Your task to perform on an android device: Go to location settings Image 0: 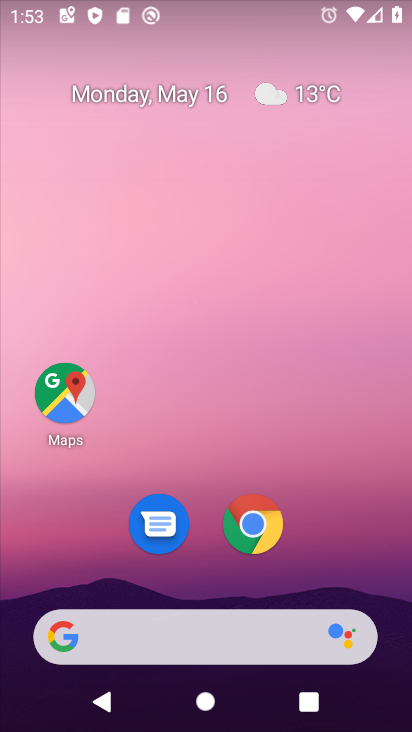
Step 0: drag from (285, 434) to (329, 26)
Your task to perform on an android device: Go to location settings Image 1: 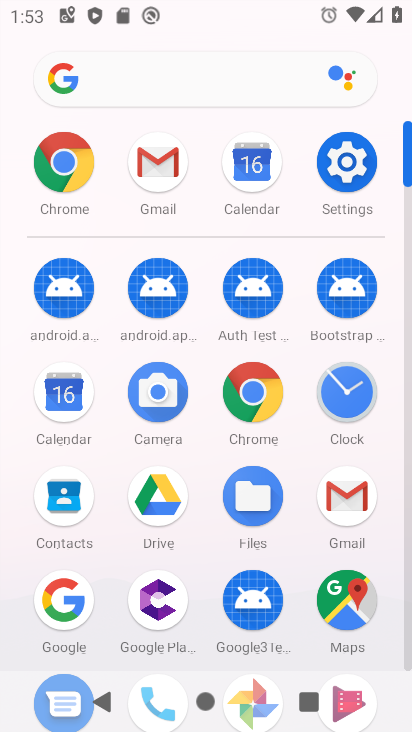
Step 1: click (352, 163)
Your task to perform on an android device: Go to location settings Image 2: 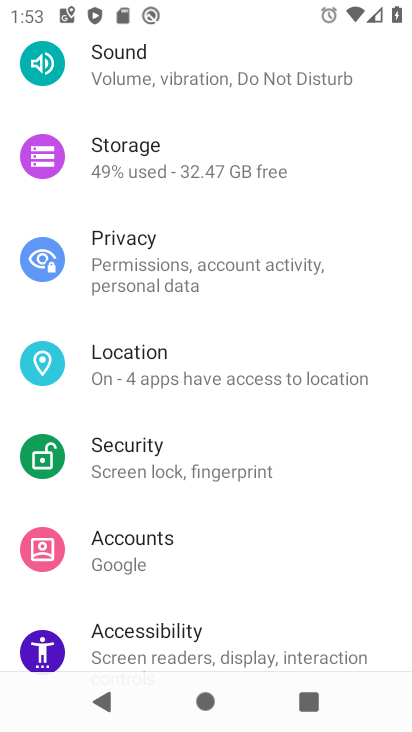
Step 2: drag from (210, 530) to (233, 197)
Your task to perform on an android device: Go to location settings Image 3: 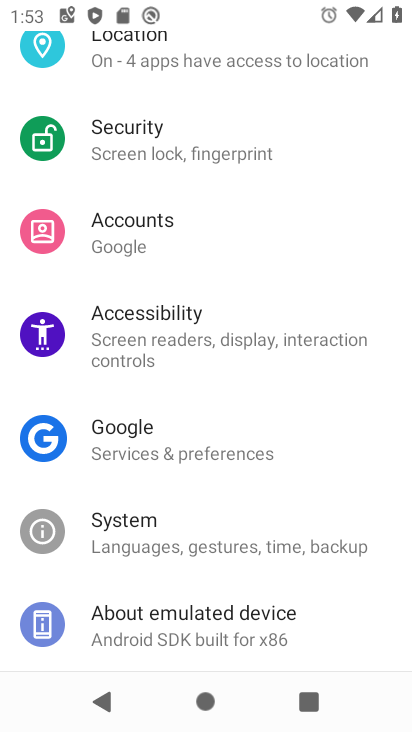
Step 3: drag from (230, 290) to (247, 601)
Your task to perform on an android device: Go to location settings Image 4: 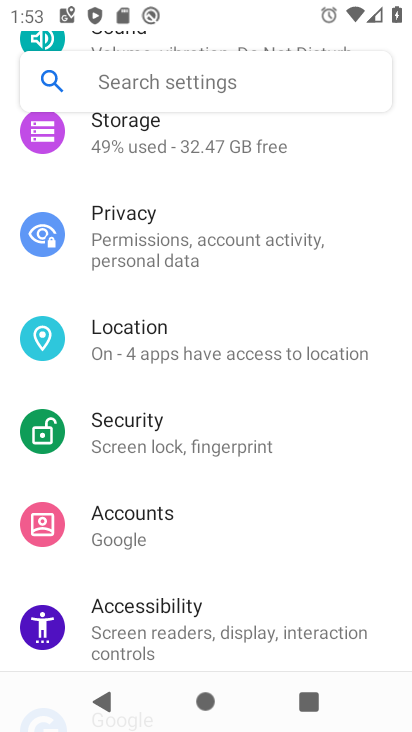
Step 4: click (239, 338)
Your task to perform on an android device: Go to location settings Image 5: 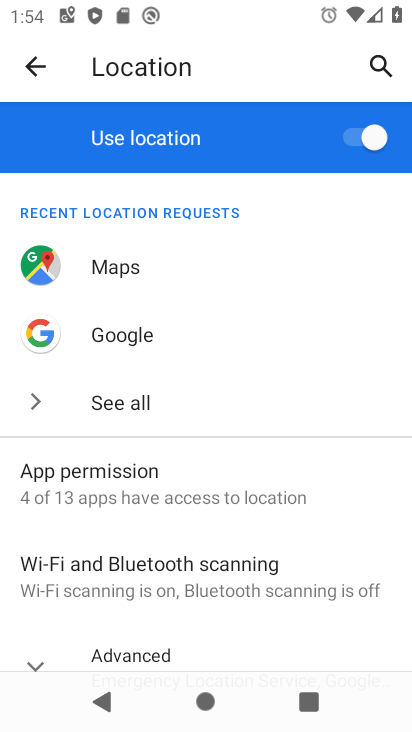
Step 5: click (41, 61)
Your task to perform on an android device: Go to location settings Image 6: 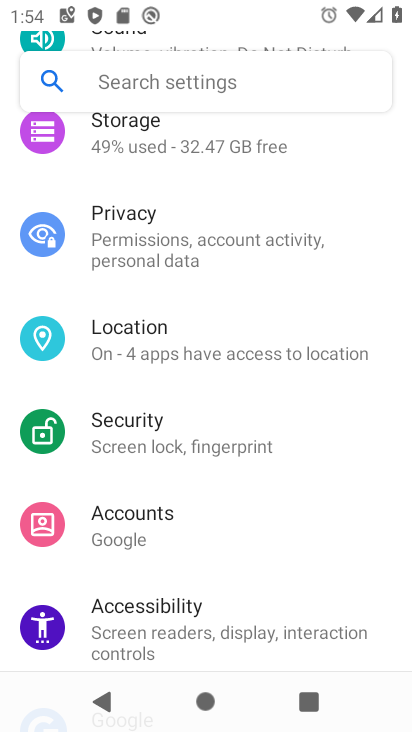
Step 6: click (185, 342)
Your task to perform on an android device: Go to location settings Image 7: 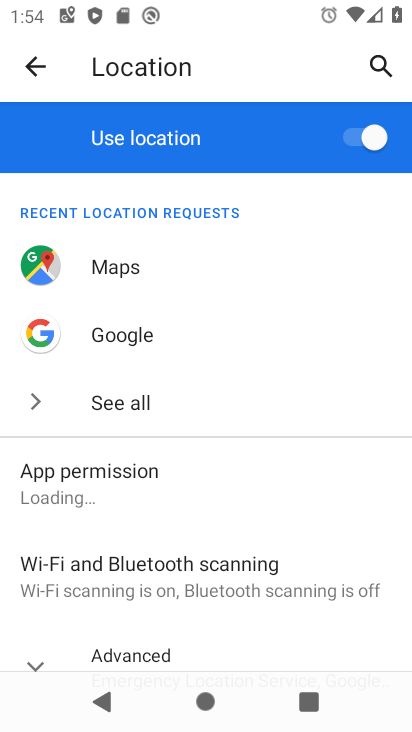
Step 7: task complete